Your task to perform on an android device: What's the weather today? Image 0: 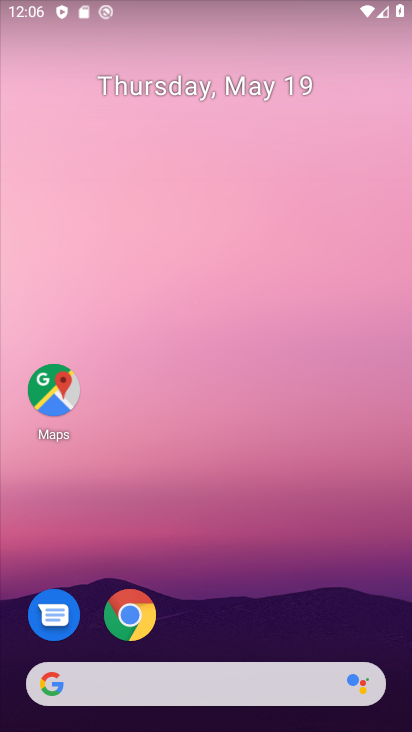
Step 0: drag from (212, 628) to (210, 218)
Your task to perform on an android device: What's the weather today? Image 1: 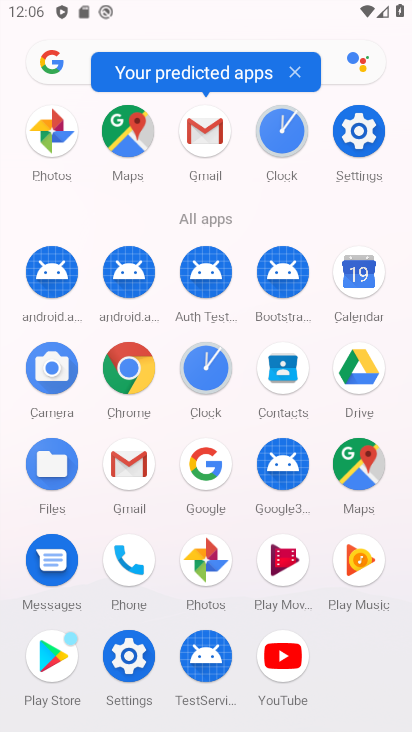
Step 1: drag from (195, 516) to (227, 263)
Your task to perform on an android device: What's the weather today? Image 2: 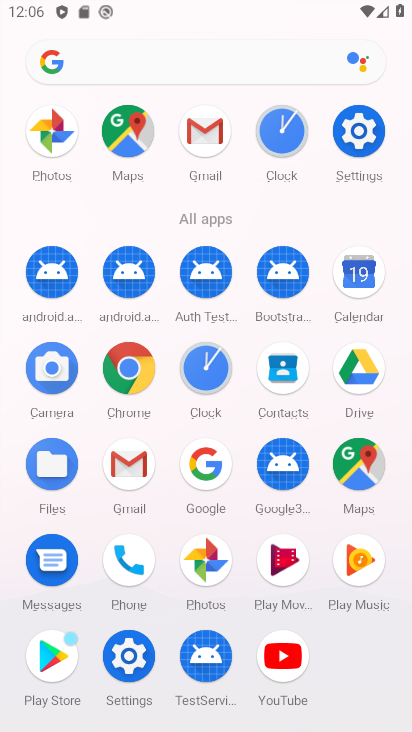
Step 2: drag from (142, 366) to (158, 459)
Your task to perform on an android device: What's the weather today? Image 3: 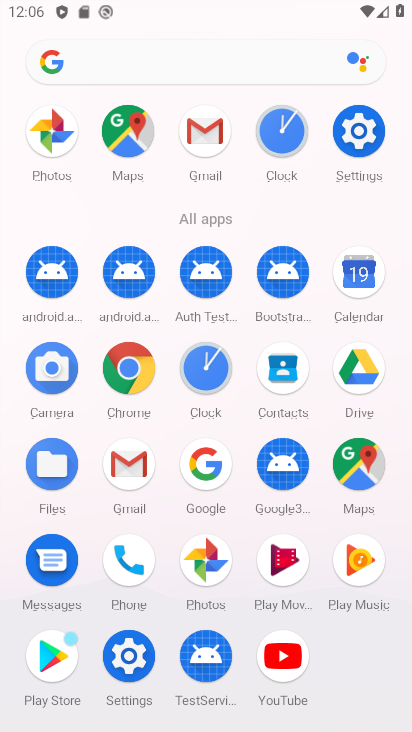
Step 3: drag from (153, 482) to (141, 257)
Your task to perform on an android device: What's the weather today? Image 4: 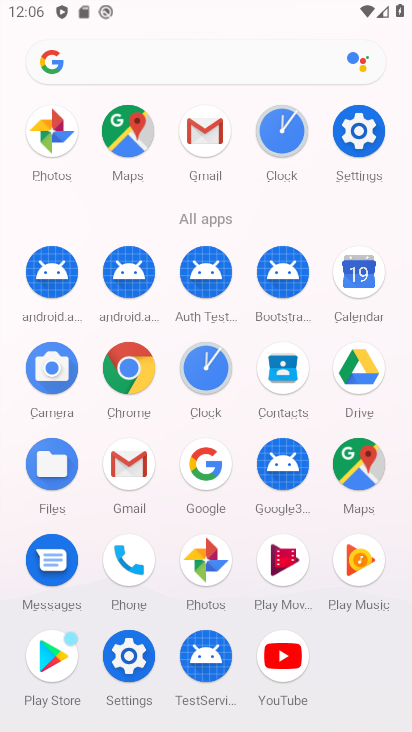
Step 4: click (198, 488)
Your task to perform on an android device: What's the weather today? Image 5: 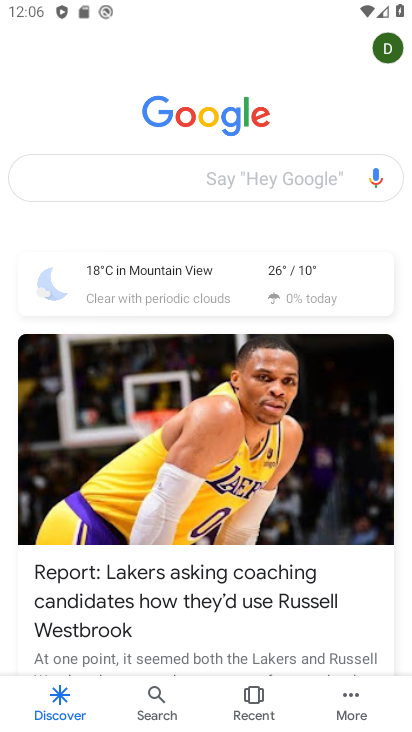
Step 5: click (134, 175)
Your task to perform on an android device: What's the weather today? Image 6: 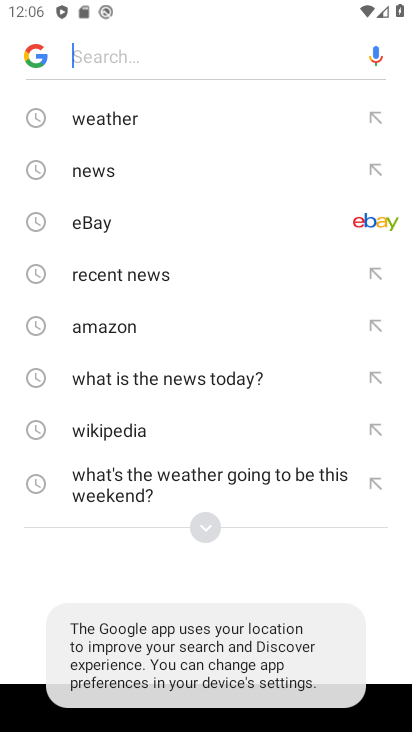
Step 6: click (122, 120)
Your task to perform on an android device: What's the weather today? Image 7: 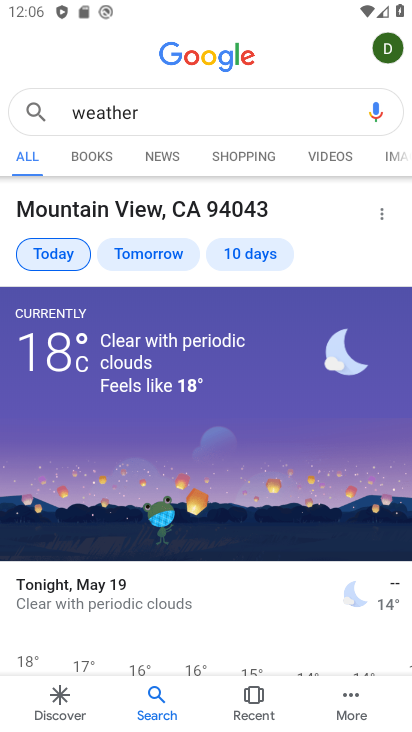
Step 7: task complete